Your task to perform on an android device: Search for a new desk on Ikea Image 0: 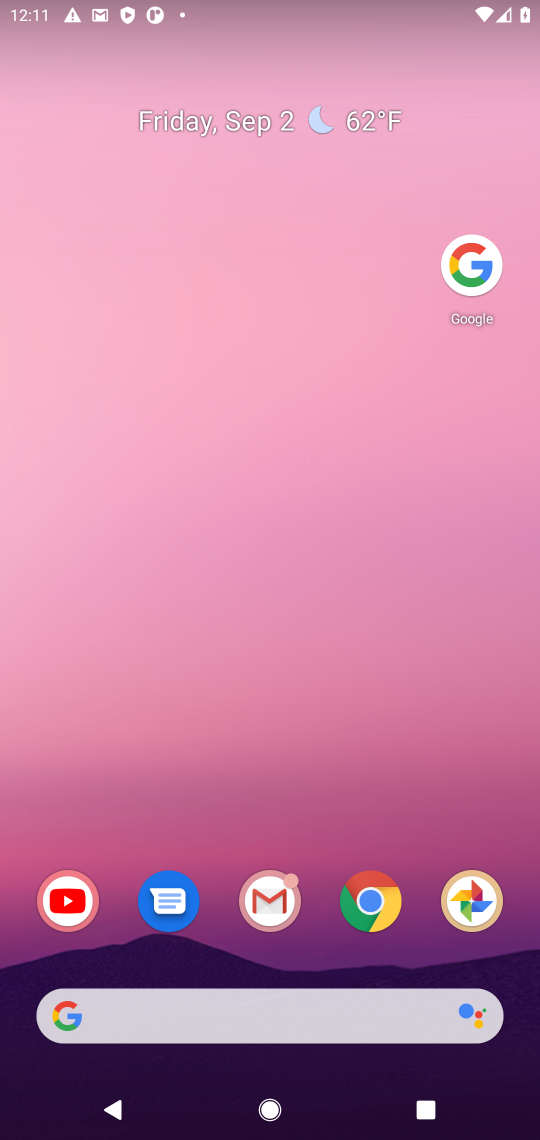
Step 0: drag from (269, 375) to (276, 292)
Your task to perform on an android device: Search for a new desk on Ikea Image 1: 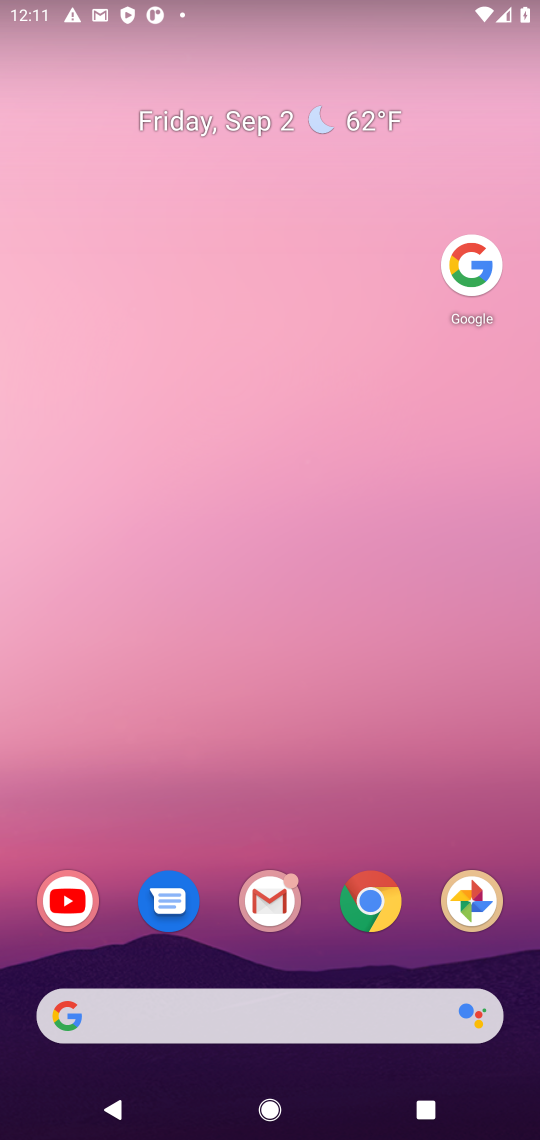
Step 1: click (455, 269)
Your task to perform on an android device: Search for a new desk on Ikea Image 2: 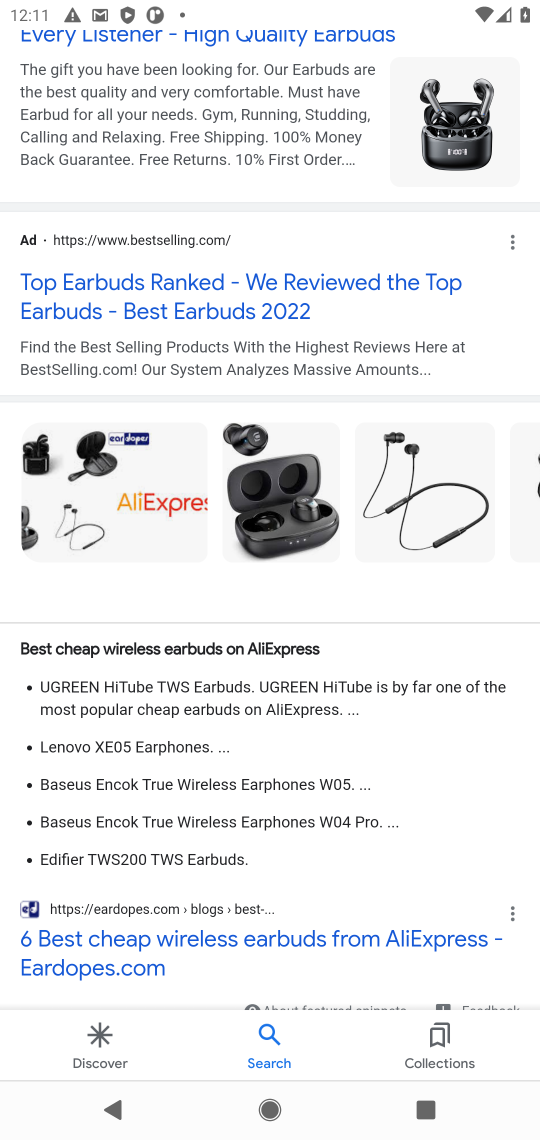
Step 2: drag from (220, 159) to (285, 940)
Your task to perform on an android device: Search for a new desk on Ikea Image 3: 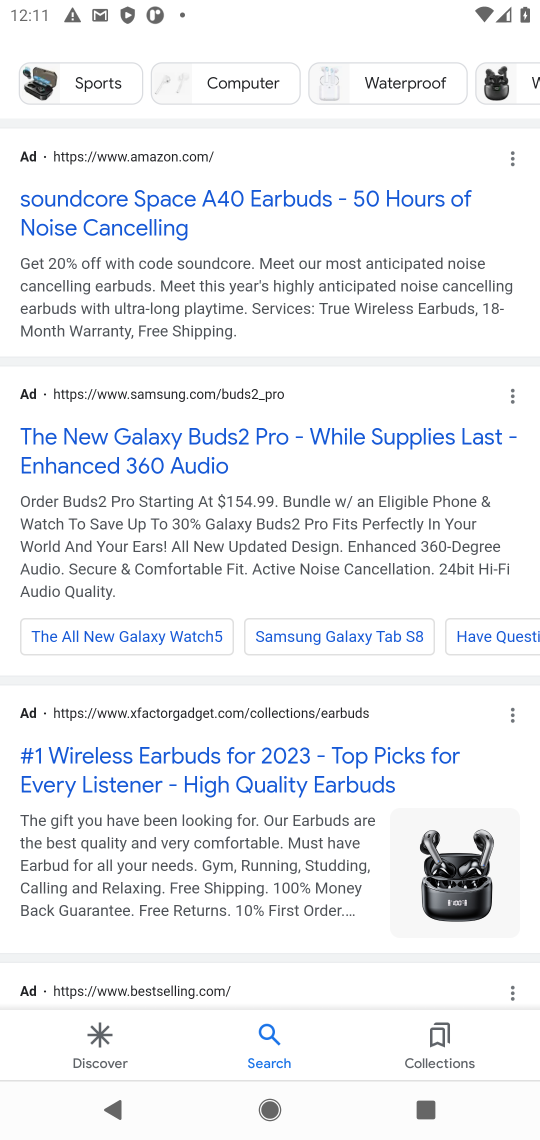
Step 3: drag from (236, 295) to (228, 839)
Your task to perform on an android device: Search for a new desk on Ikea Image 4: 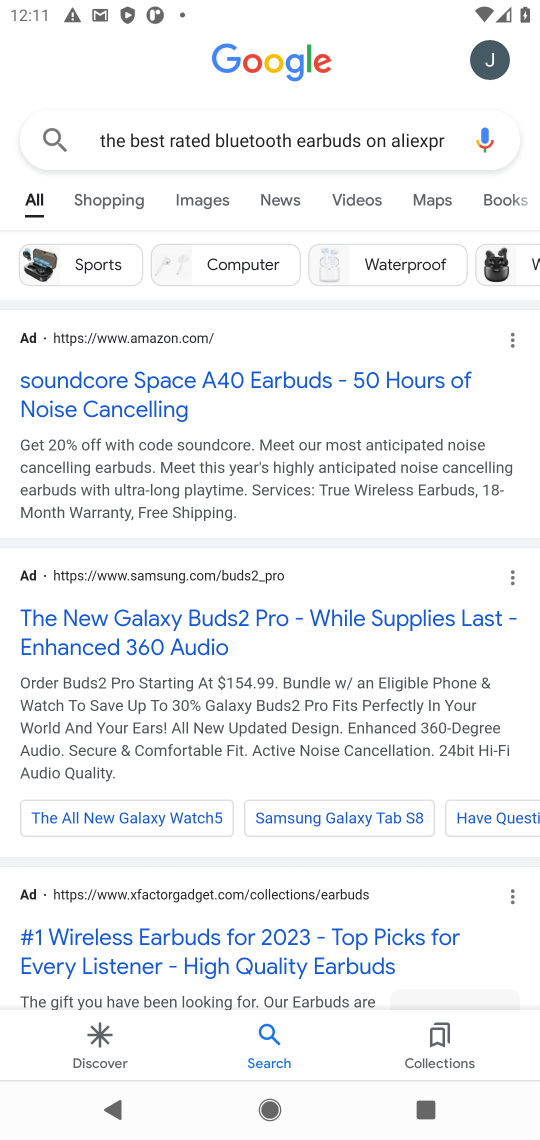
Step 4: click (327, 133)
Your task to perform on an android device: Search for a new desk on Ikea Image 5: 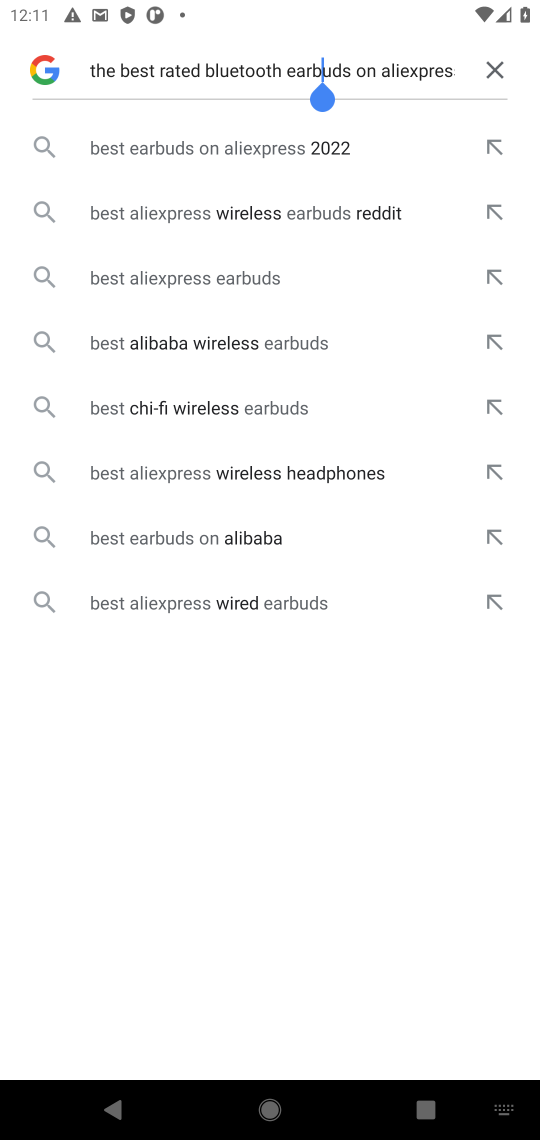
Step 5: click (505, 70)
Your task to perform on an android device: Search for a new desk on Ikea Image 6: 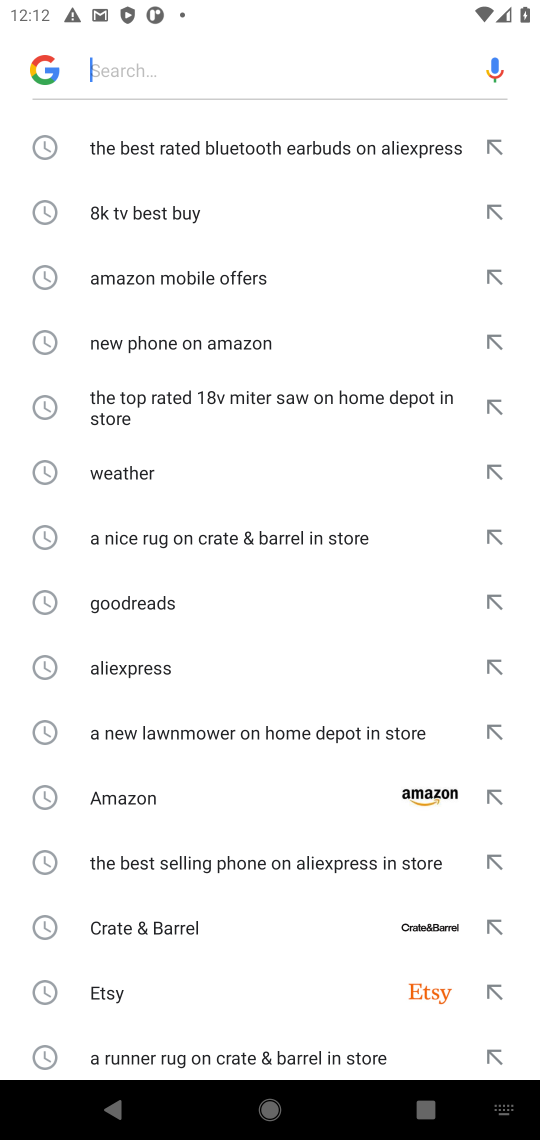
Step 6: click (94, 61)
Your task to perform on an android device: Search for a new desk on Ikea Image 7: 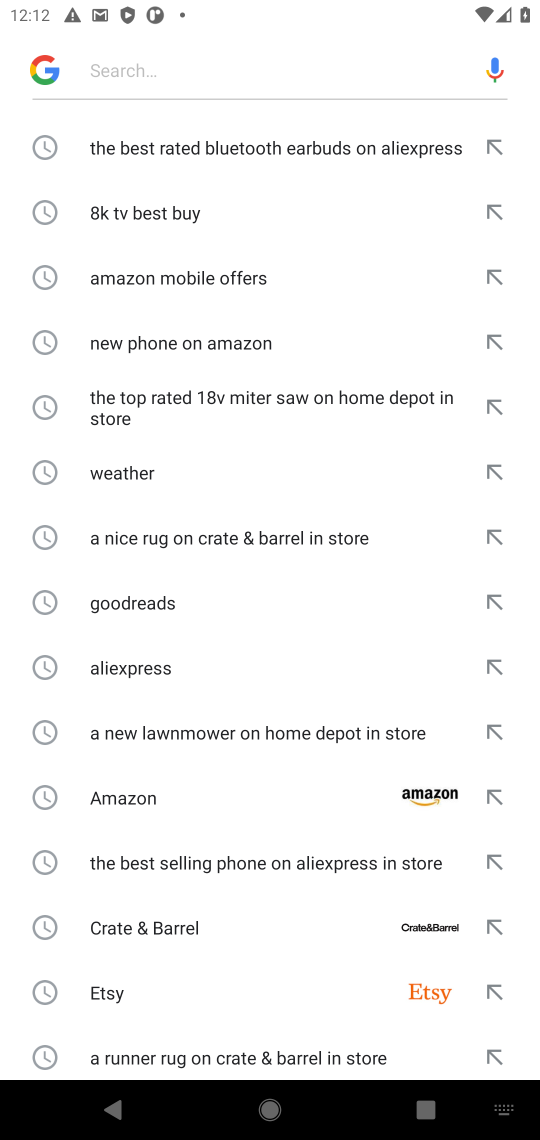
Step 7: type " a new desk on Ikea "
Your task to perform on an android device: Search for a new desk on Ikea Image 8: 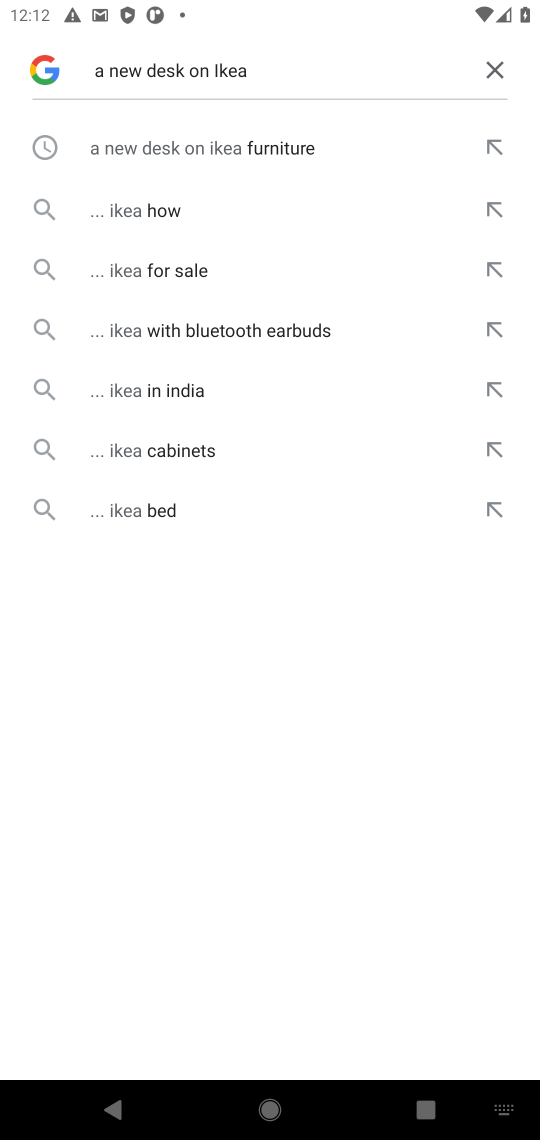
Step 8: click (237, 154)
Your task to perform on an android device: Search for a new desk on Ikea Image 9: 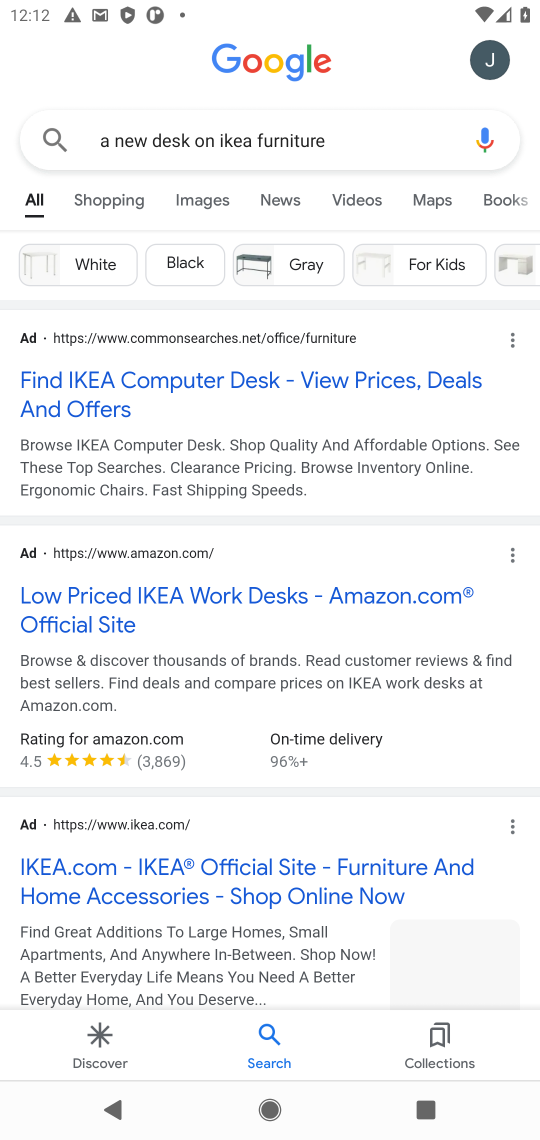
Step 9: click (123, 370)
Your task to perform on an android device: Search for a new desk on Ikea Image 10: 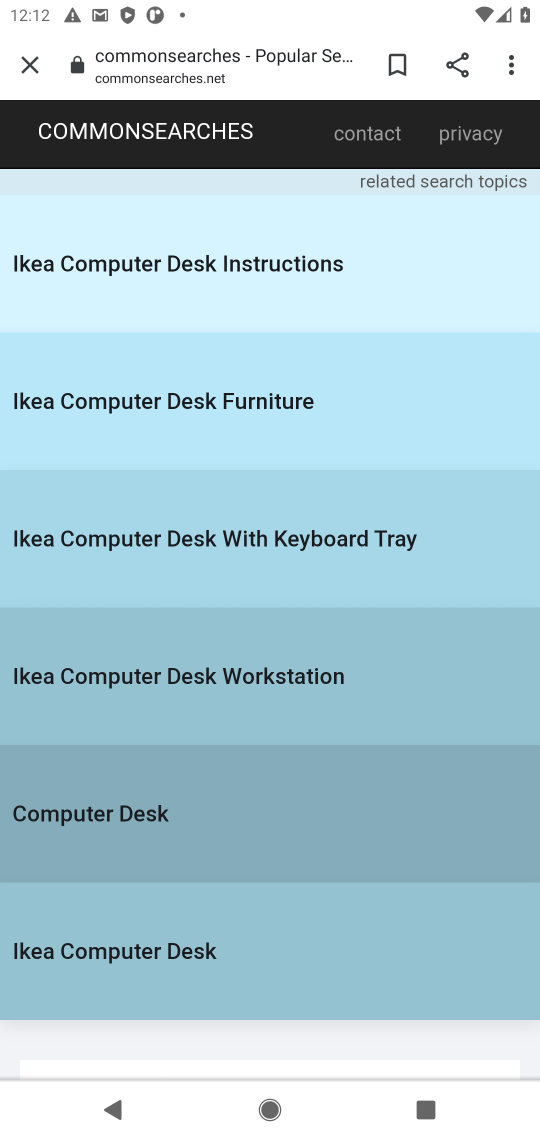
Step 10: drag from (197, 738) to (323, 248)
Your task to perform on an android device: Search for a new desk on Ikea Image 11: 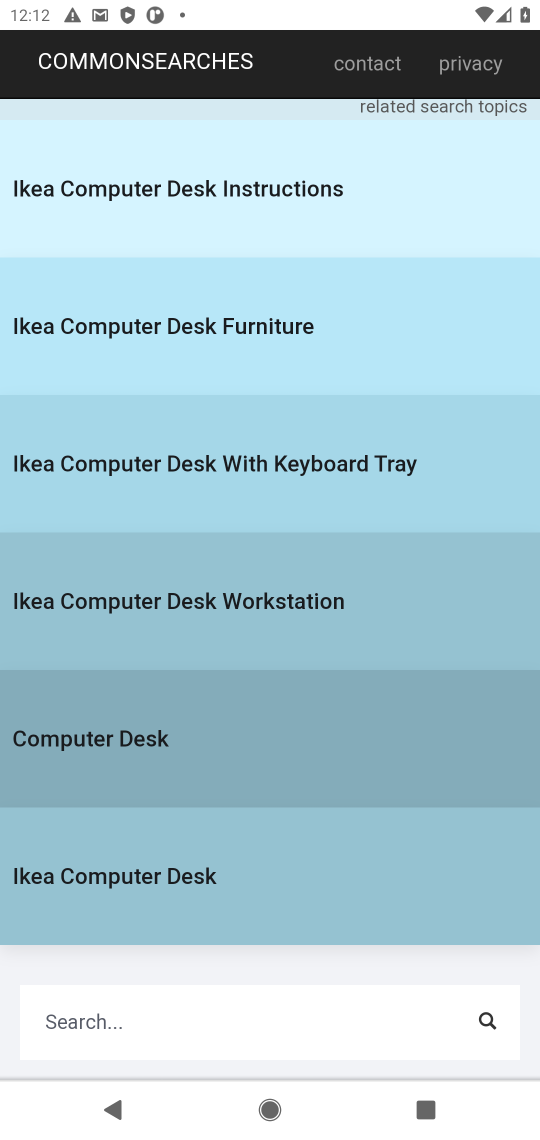
Step 11: press back button
Your task to perform on an android device: Search for a new desk on Ikea Image 12: 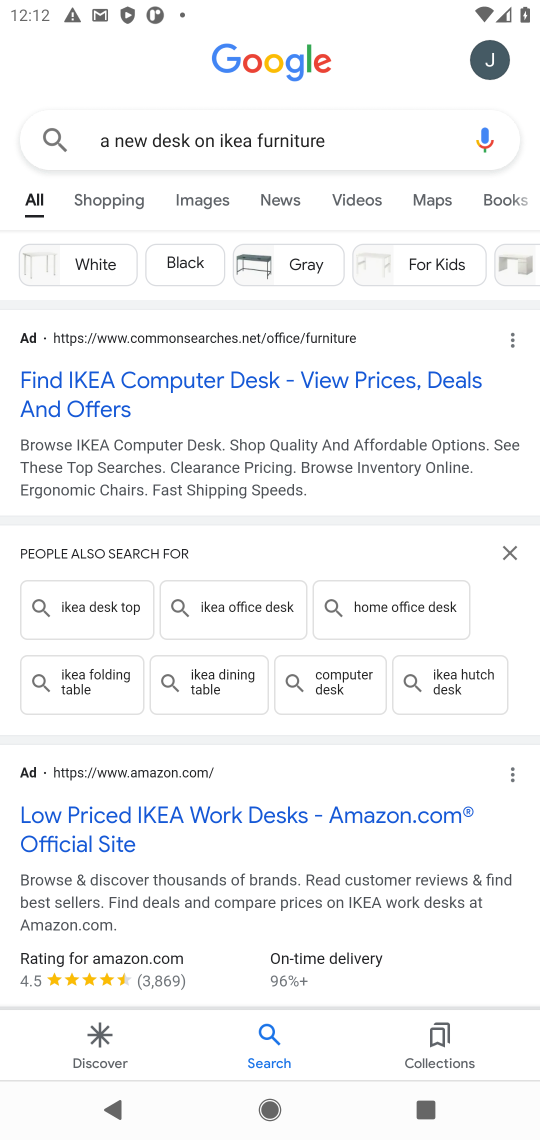
Step 12: click (89, 814)
Your task to perform on an android device: Search for a new desk on Ikea Image 13: 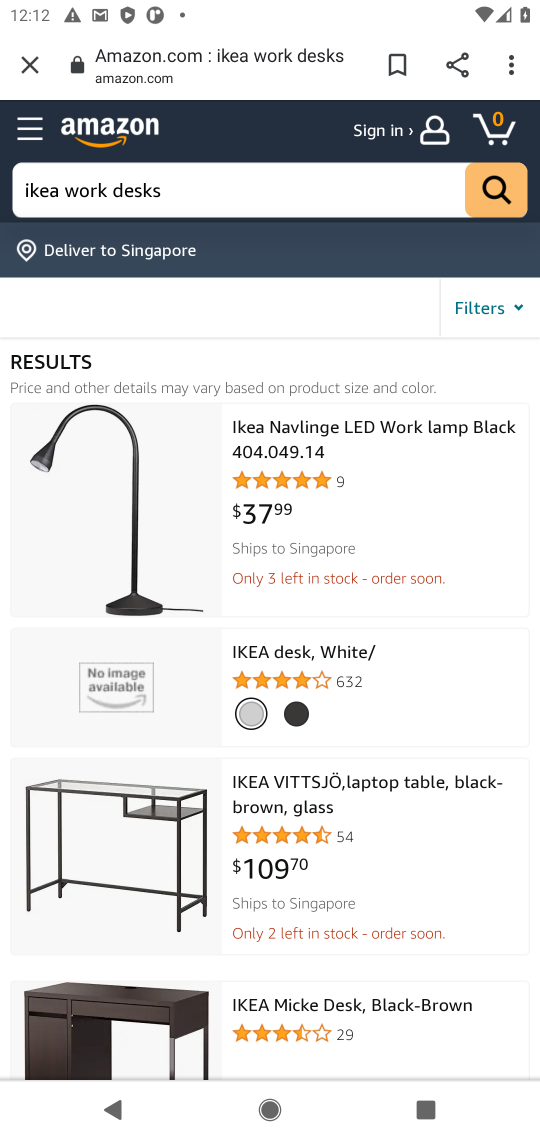
Step 13: press back button
Your task to perform on an android device: Search for a new desk on Ikea Image 14: 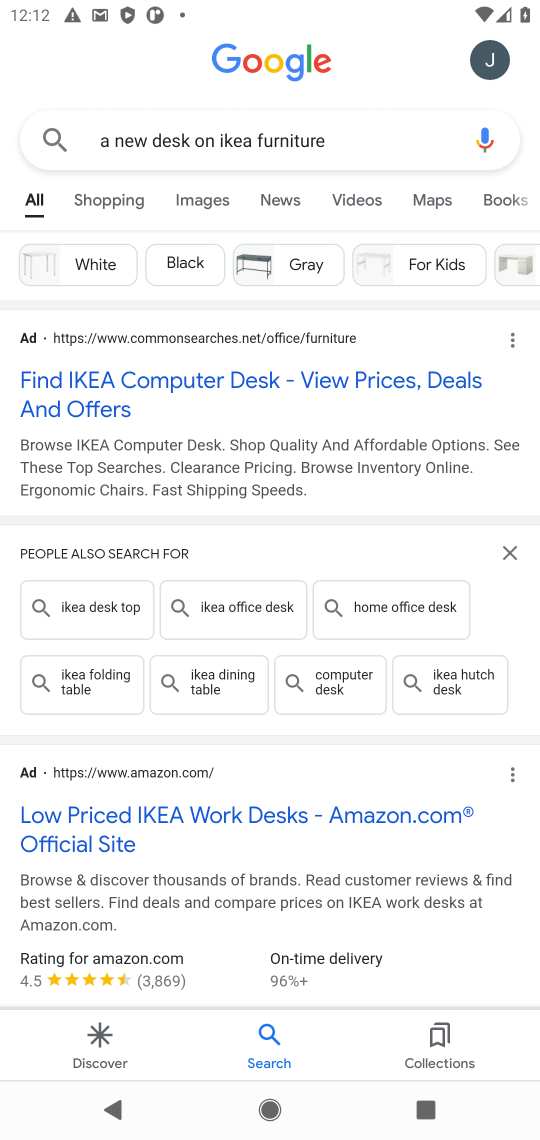
Step 14: drag from (147, 918) to (239, 437)
Your task to perform on an android device: Search for a new desk on Ikea Image 15: 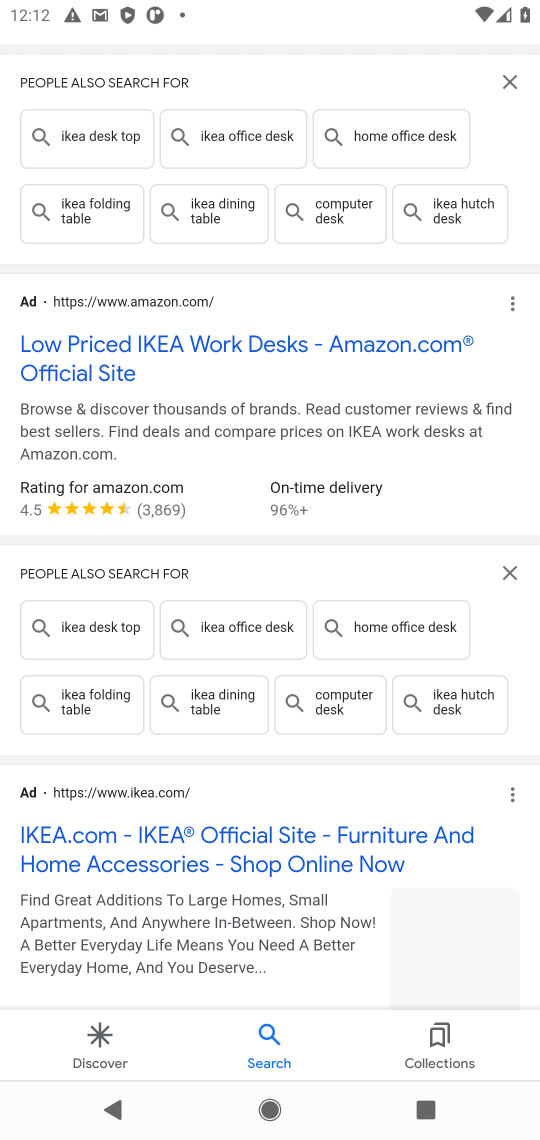
Step 15: click (178, 830)
Your task to perform on an android device: Search for a new desk on Ikea Image 16: 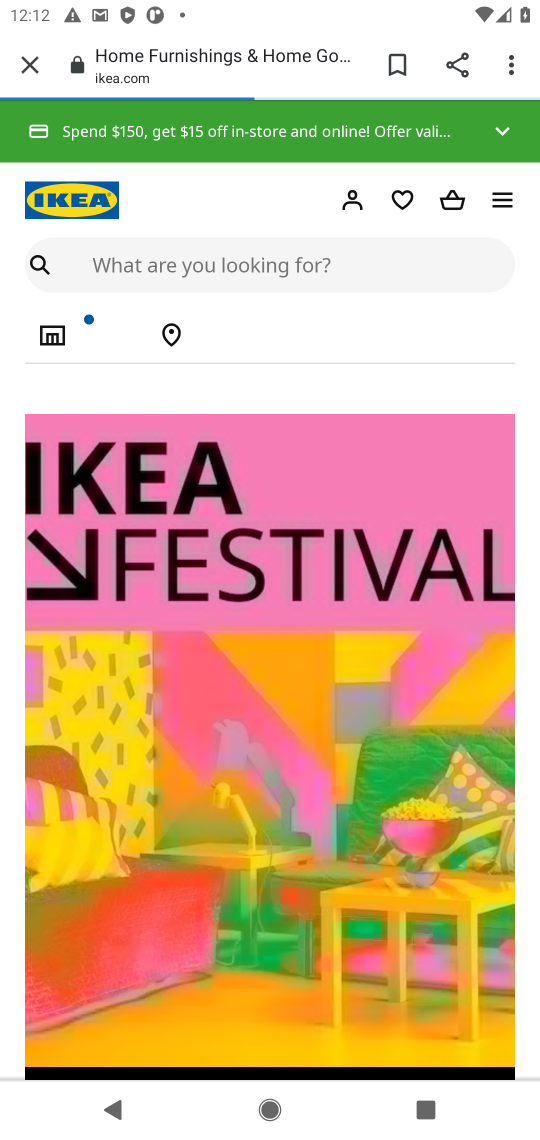
Step 16: click (191, 254)
Your task to perform on an android device: Search for a new desk on Ikea Image 17: 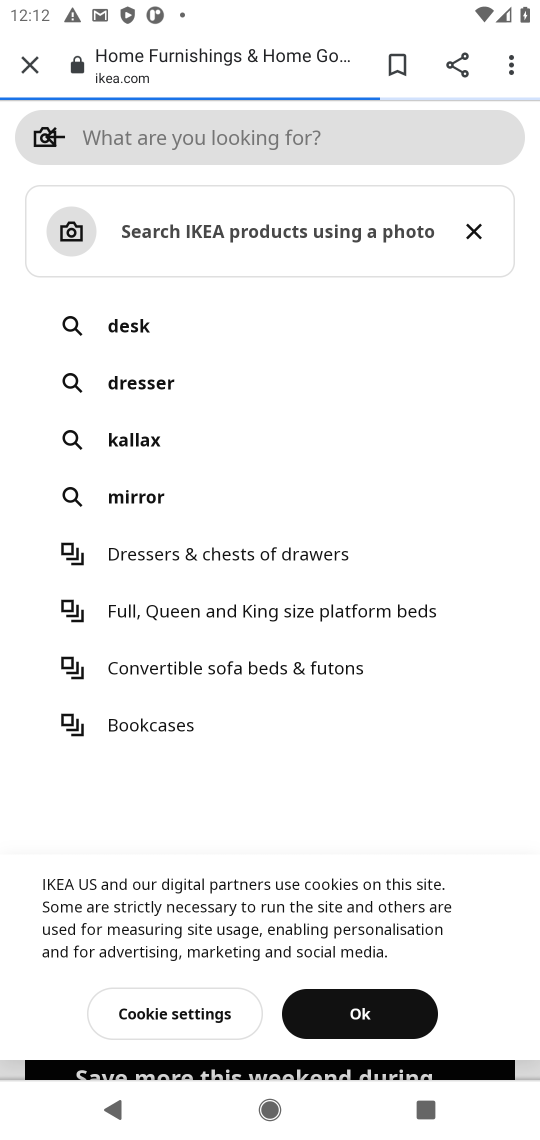
Step 17: type "desk "
Your task to perform on an android device: Search for a new desk on Ikea Image 18: 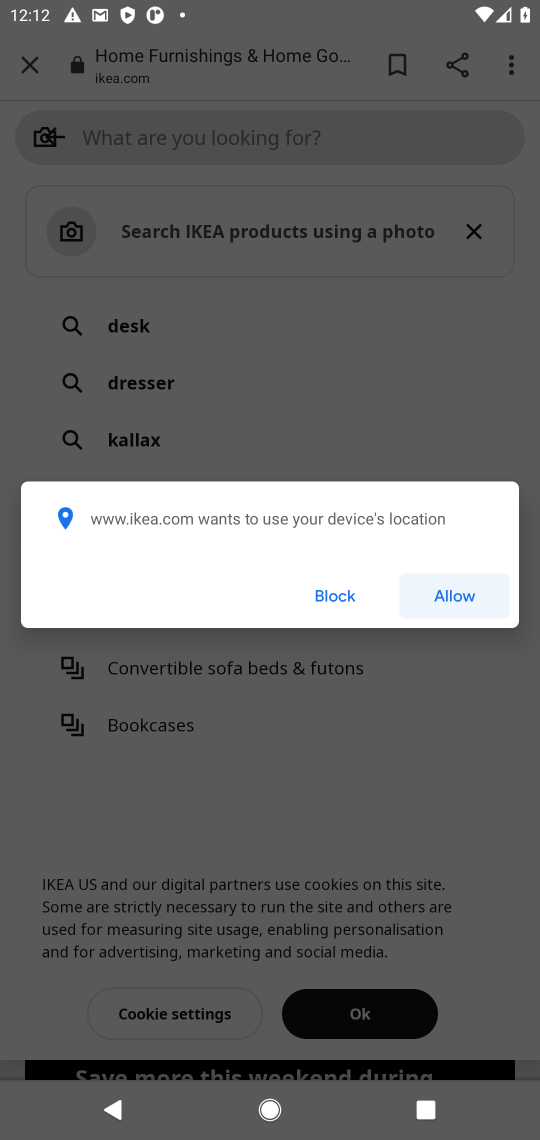
Step 18: click (460, 595)
Your task to perform on an android device: Search for a new desk on Ikea Image 19: 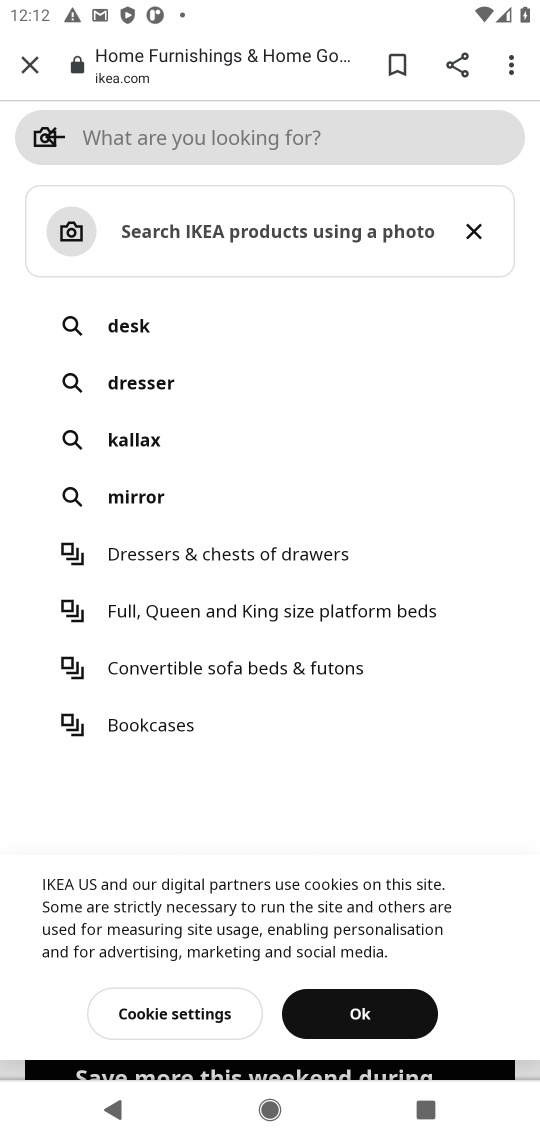
Step 19: click (135, 325)
Your task to perform on an android device: Search for a new desk on Ikea Image 20: 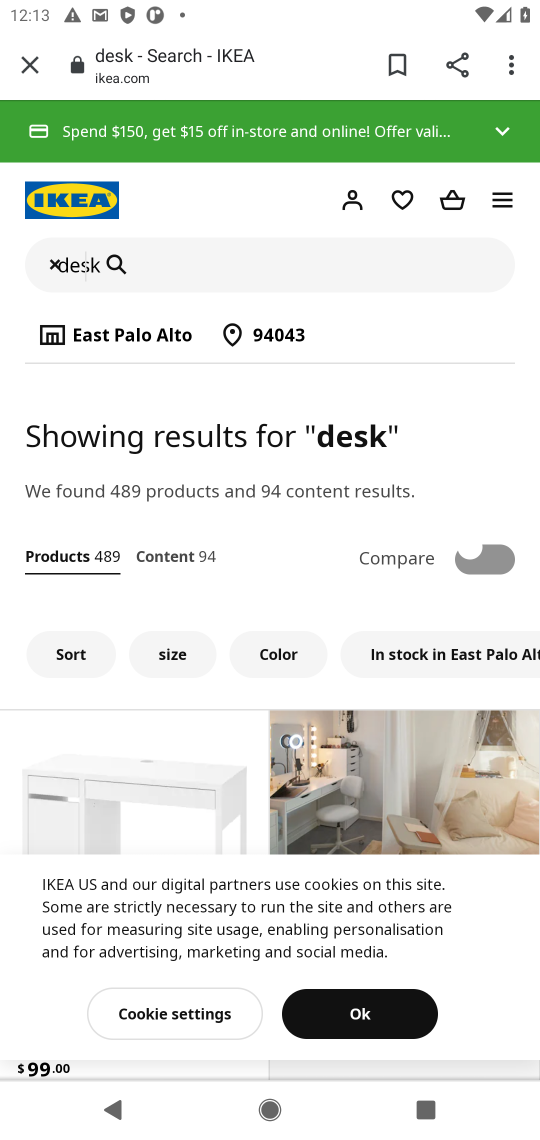
Step 20: task complete